Your task to perform on an android device: check out phone information Image 0: 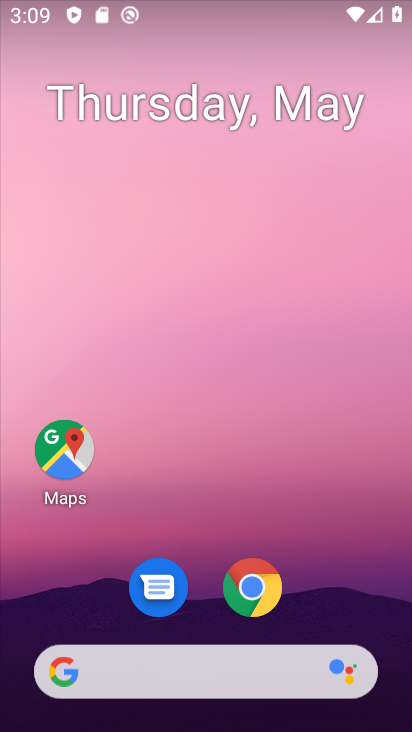
Step 0: drag from (316, 546) to (273, 56)
Your task to perform on an android device: check out phone information Image 1: 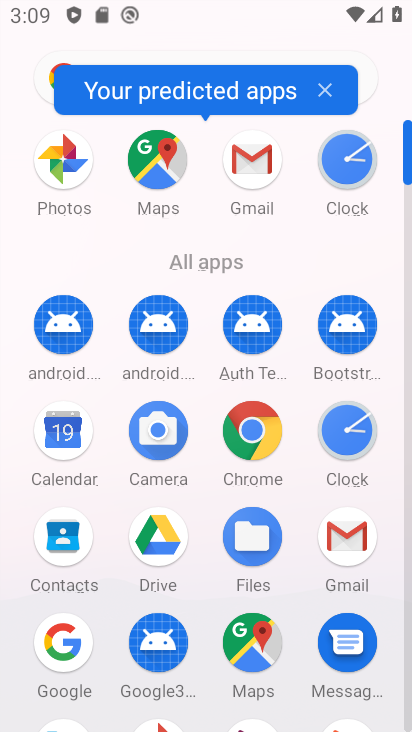
Step 1: drag from (16, 522) to (12, 178)
Your task to perform on an android device: check out phone information Image 2: 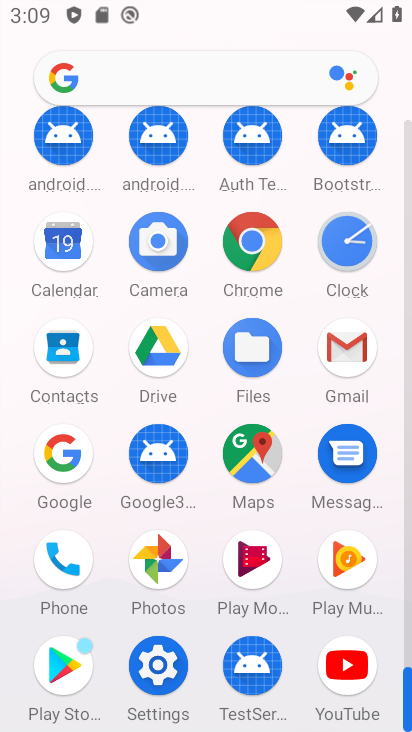
Step 2: click (160, 663)
Your task to perform on an android device: check out phone information Image 3: 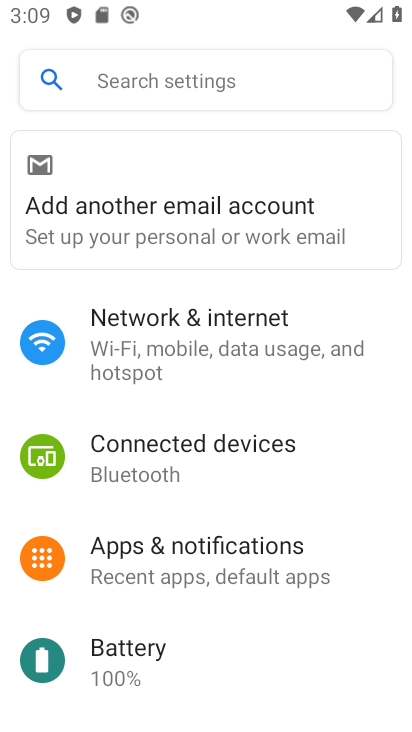
Step 3: drag from (222, 640) to (250, 132)
Your task to perform on an android device: check out phone information Image 4: 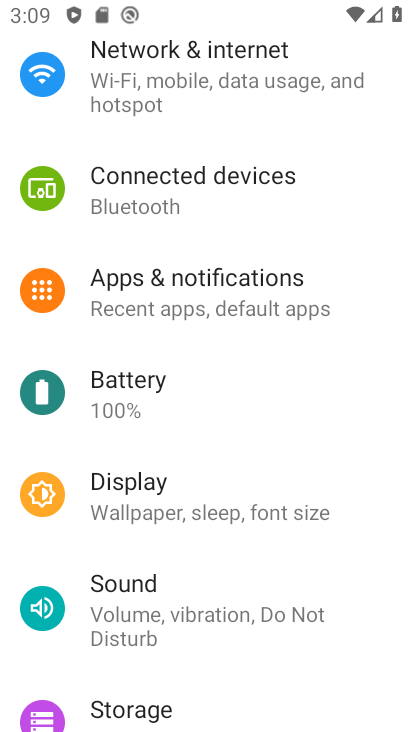
Step 4: drag from (234, 609) to (201, 166)
Your task to perform on an android device: check out phone information Image 5: 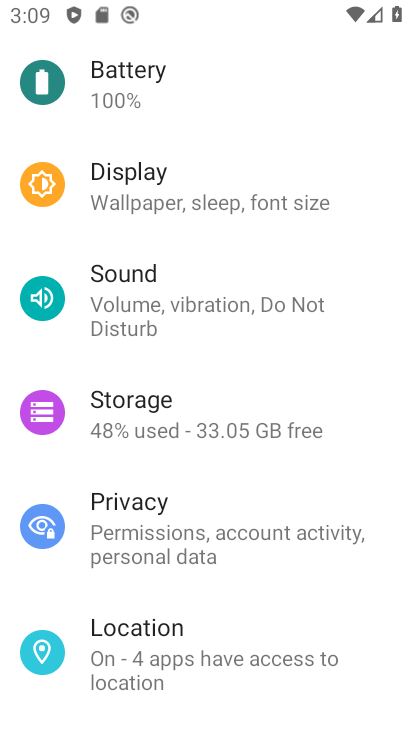
Step 5: drag from (214, 599) to (211, 203)
Your task to perform on an android device: check out phone information Image 6: 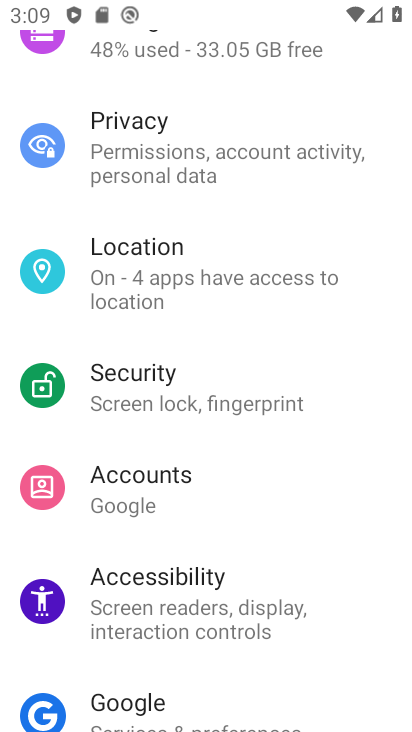
Step 6: drag from (216, 608) to (220, 195)
Your task to perform on an android device: check out phone information Image 7: 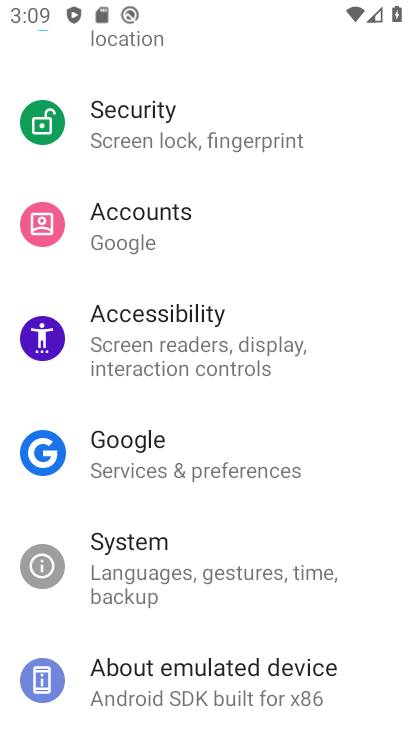
Step 7: click (234, 666)
Your task to perform on an android device: check out phone information Image 8: 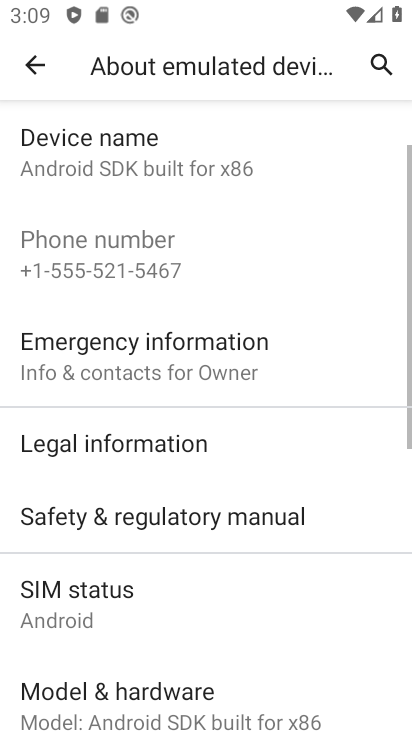
Step 8: task complete